Your task to perform on an android device: toggle priority inbox in the gmail app Image 0: 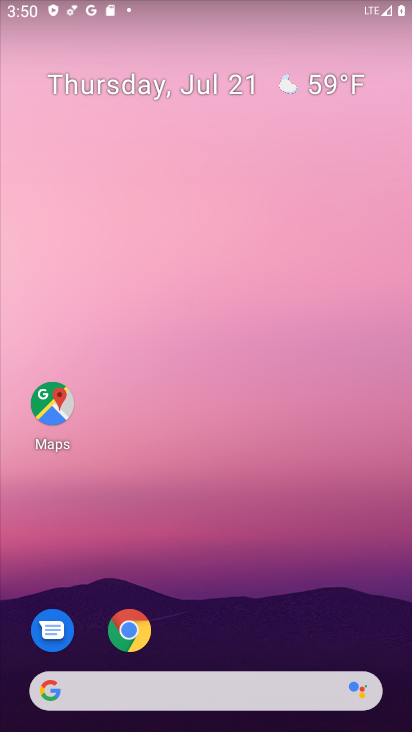
Step 0: drag from (193, 625) to (193, 166)
Your task to perform on an android device: toggle priority inbox in the gmail app Image 1: 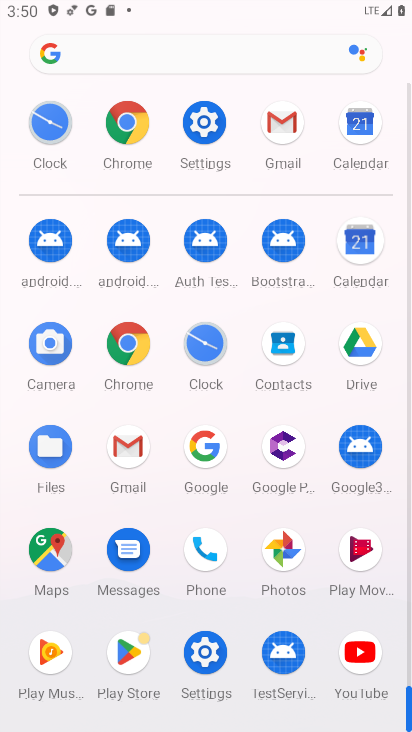
Step 1: click (141, 442)
Your task to perform on an android device: toggle priority inbox in the gmail app Image 2: 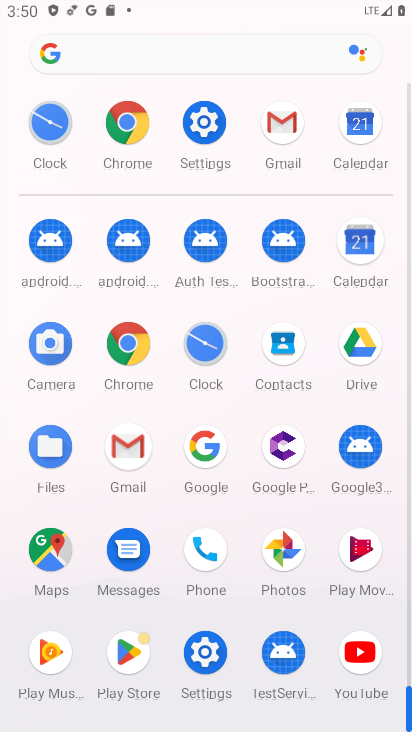
Step 2: click (141, 440)
Your task to perform on an android device: toggle priority inbox in the gmail app Image 3: 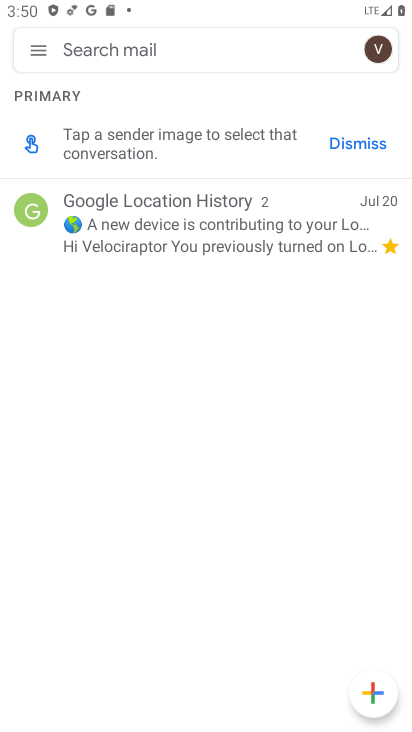
Step 3: click (37, 43)
Your task to perform on an android device: toggle priority inbox in the gmail app Image 4: 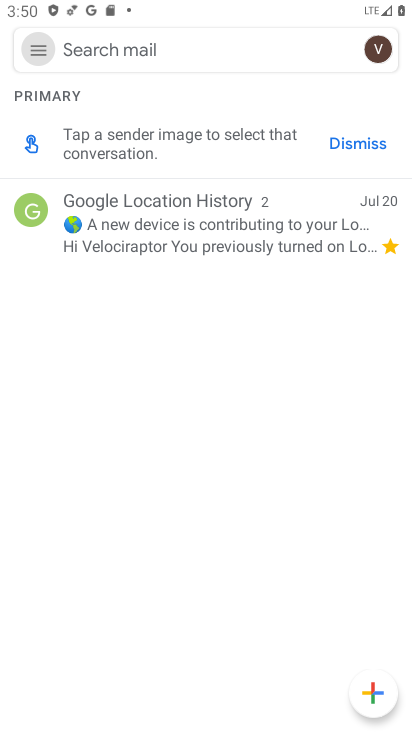
Step 4: click (37, 43)
Your task to perform on an android device: toggle priority inbox in the gmail app Image 5: 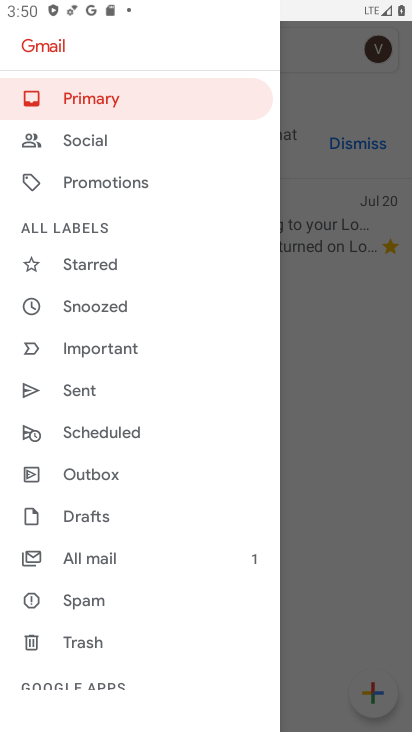
Step 5: drag from (84, 584) to (85, 88)
Your task to perform on an android device: toggle priority inbox in the gmail app Image 6: 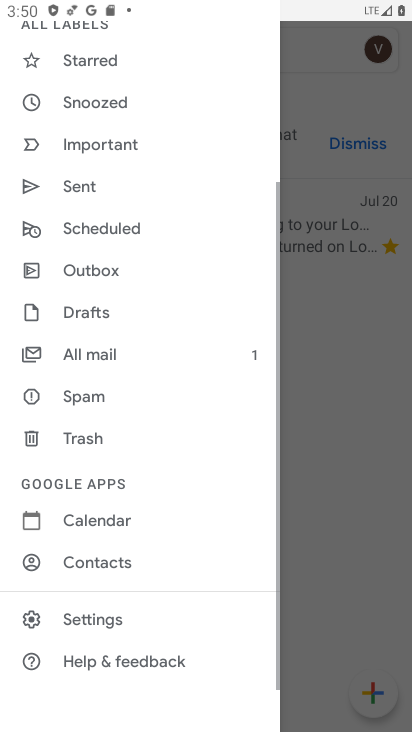
Step 6: click (89, 615)
Your task to perform on an android device: toggle priority inbox in the gmail app Image 7: 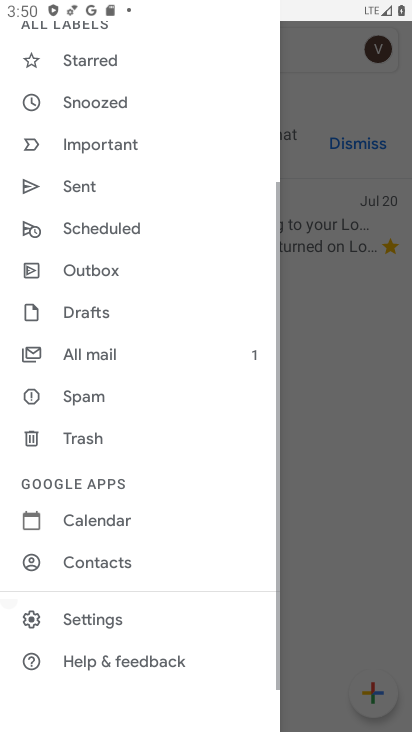
Step 7: click (91, 612)
Your task to perform on an android device: toggle priority inbox in the gmail app Image 8: 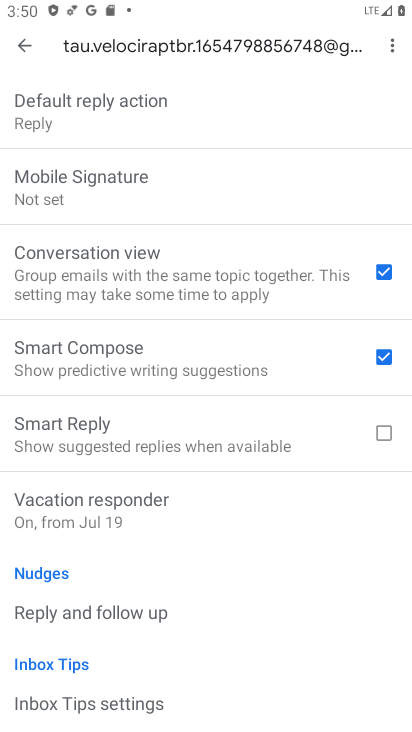
Step 8: drag from (80, 246) to (133, 598)
Your task to perform on an android device: toggle priority inbox in the gmail app Image 9: 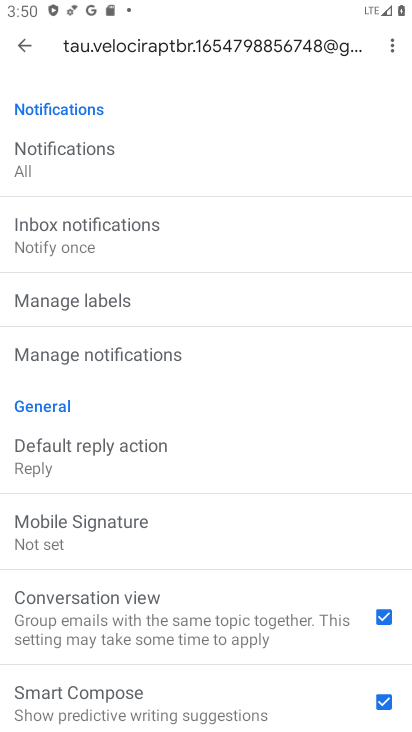
Step 9: drag from (58, 202) to (109, 502)
Your task to perform on an android device: toggle priority inbox in the gmail app Image 10: 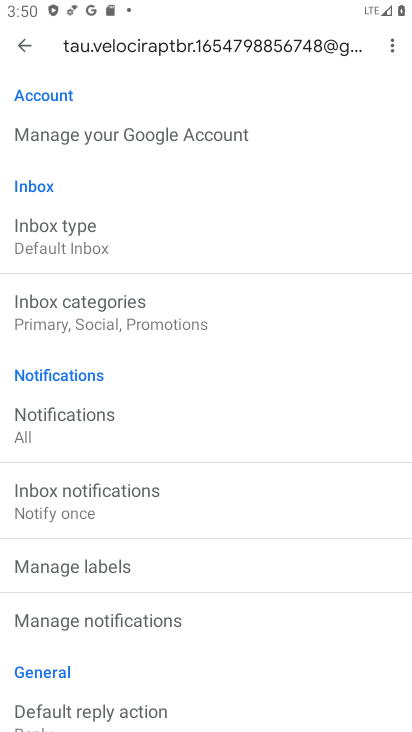
Step 10: click (57, 236)
Your task to perform on an android device: toggle priority inbox in the gmail app Image 11: 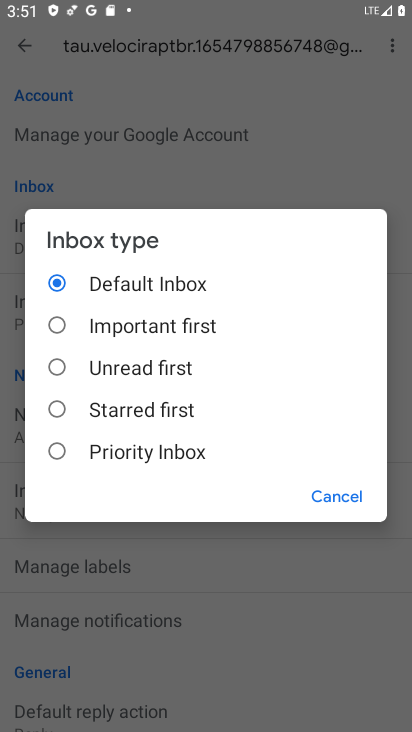
Step 11: click (50, 452)
Your task to perform on an android device: toggle priority inbox in the gmail app Image 12: 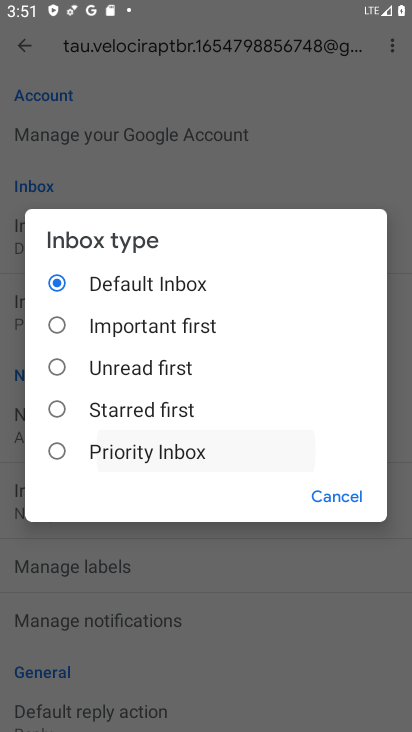
Step 12: click (55, 445)
Your task to perform on an android device: toggle priority inbox in the gmail app Image 13: 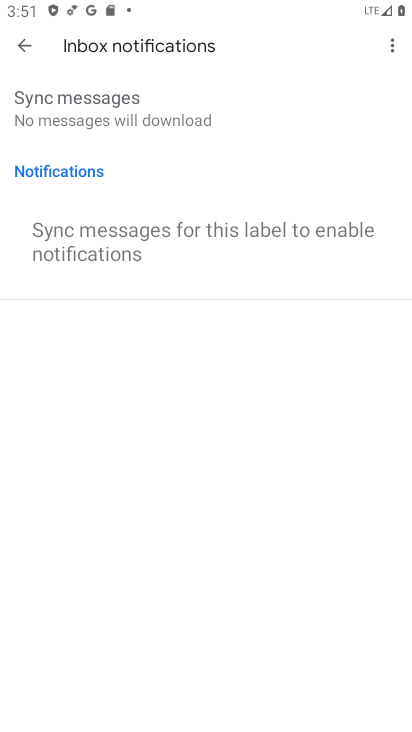
Step 13: task complete